Your task to perform on an android device: change notification settings in the gmail app Image 0: 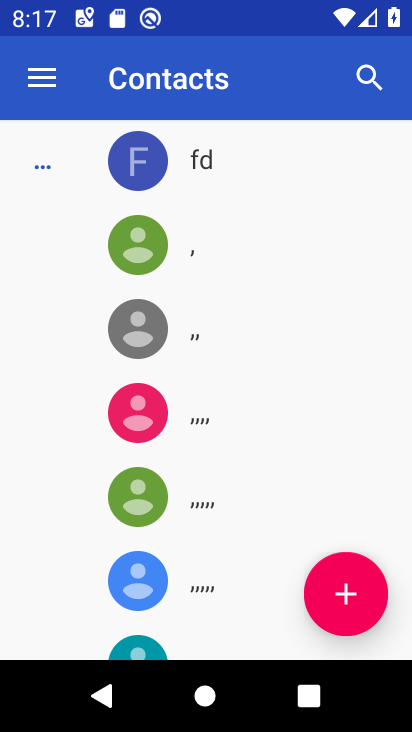
Step 0: press back button
Your task to perform on an android device: change notification settings in the gmail app Image 1: 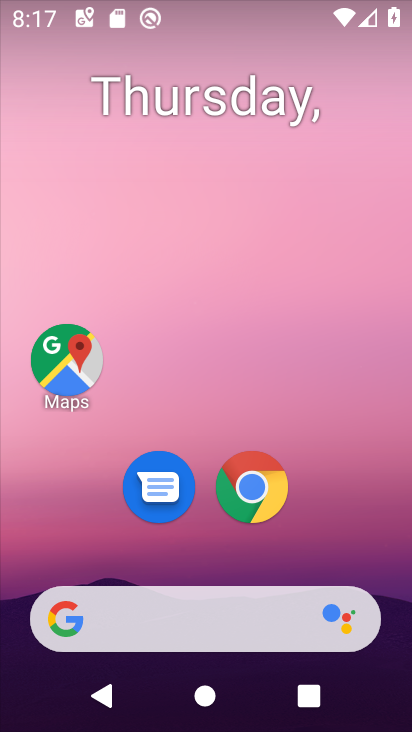
Step 1: drag from (214, 571) to (289, 64)
Your task to perform on an android device: change notification settings in the gmail app Image 2: 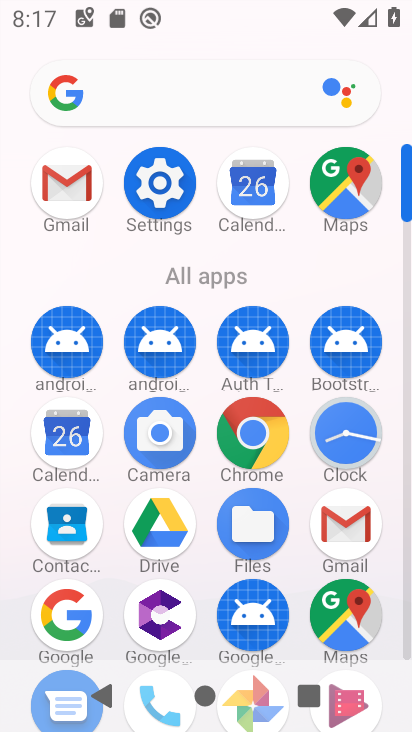
Step 2: click (74, 186)
Your task to perform on an android device: change notification settings in the gmail app Image 3: 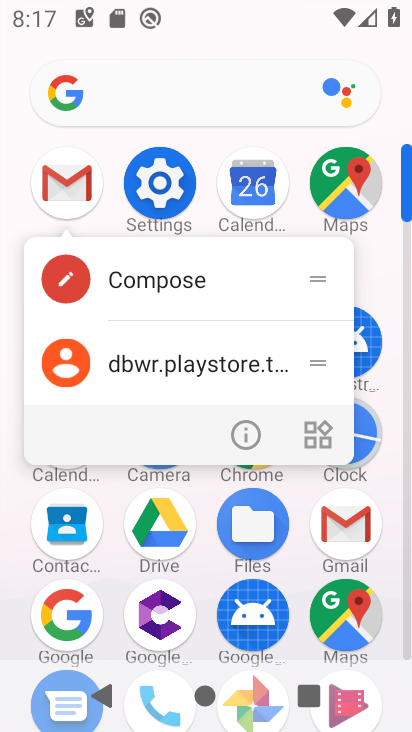
Step 3: click (238, 436)
Your task to perform on an android device: change notification settings in the gmail app Image 4: 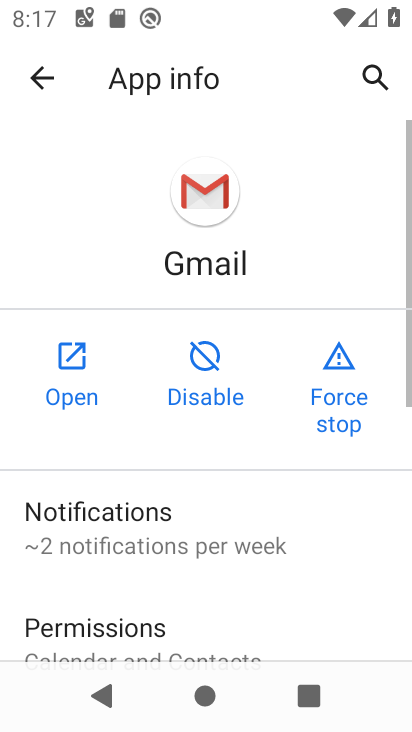
Step 4: click (171, 517)
Your task to perform on an android device: change notification settings in the gmail app Image 5: 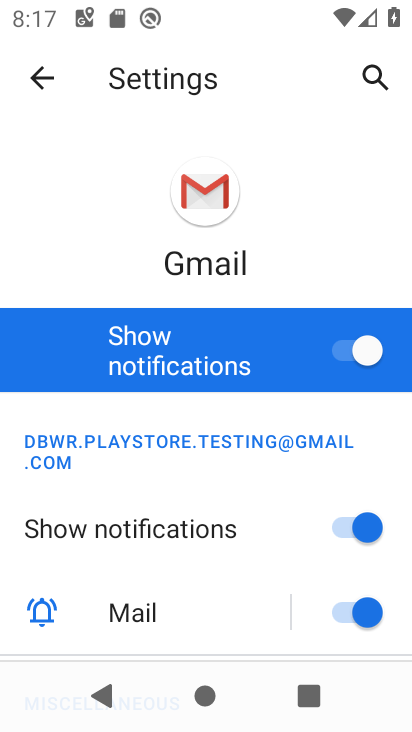
Step 5: drag from (194, 551) to (241, 190)
Your task to perform on an android device: change notification settings in the gmail app Image 6: 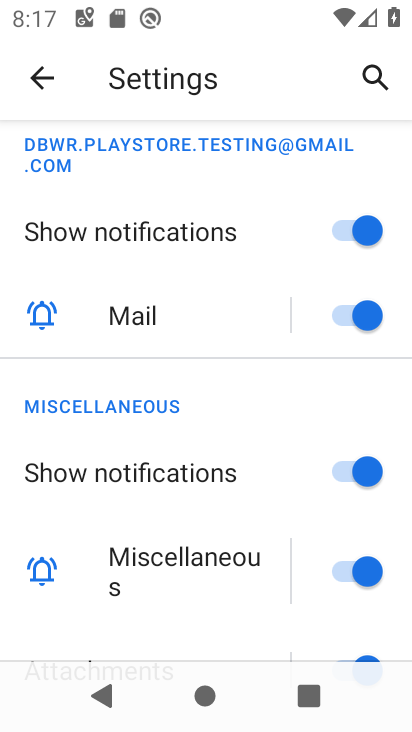
Step 6: click (355, 227)
Your task to perform on an android device: change notification settings in the gmail app Image 7: 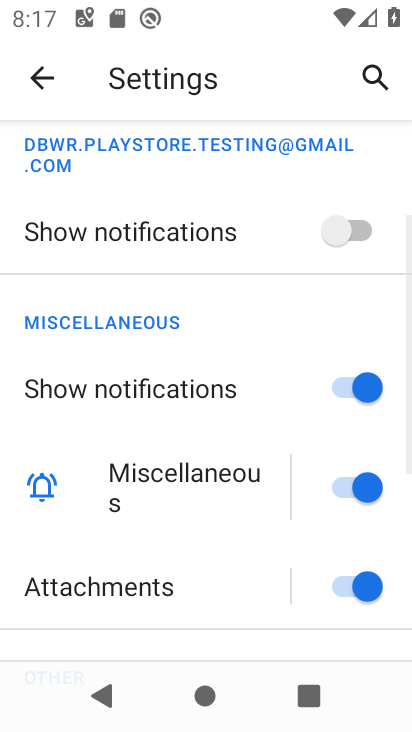
Step 7: task complete